Your task to perform on an android device: Install the Instagram app Image 0: 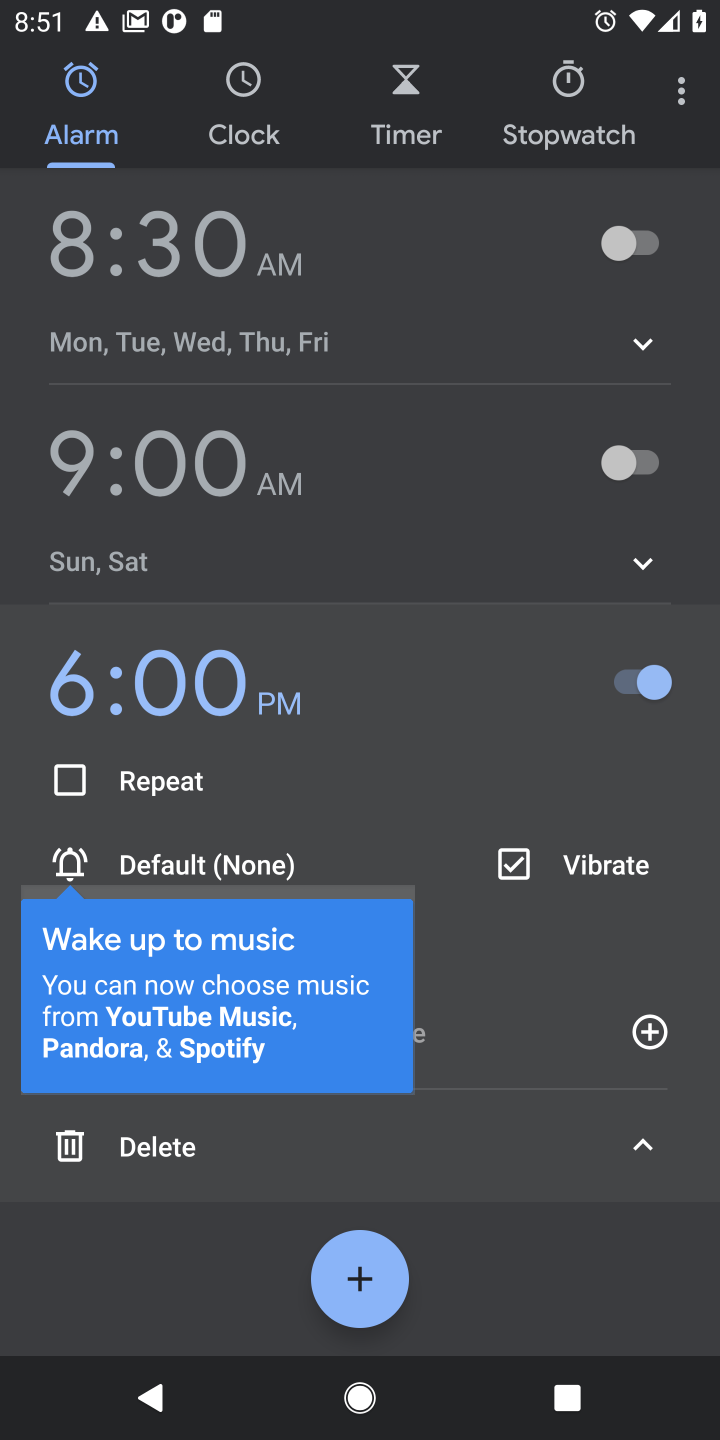
Step 0: press home button
Your task to perform on an android device: Install the Instagram app Image 1: 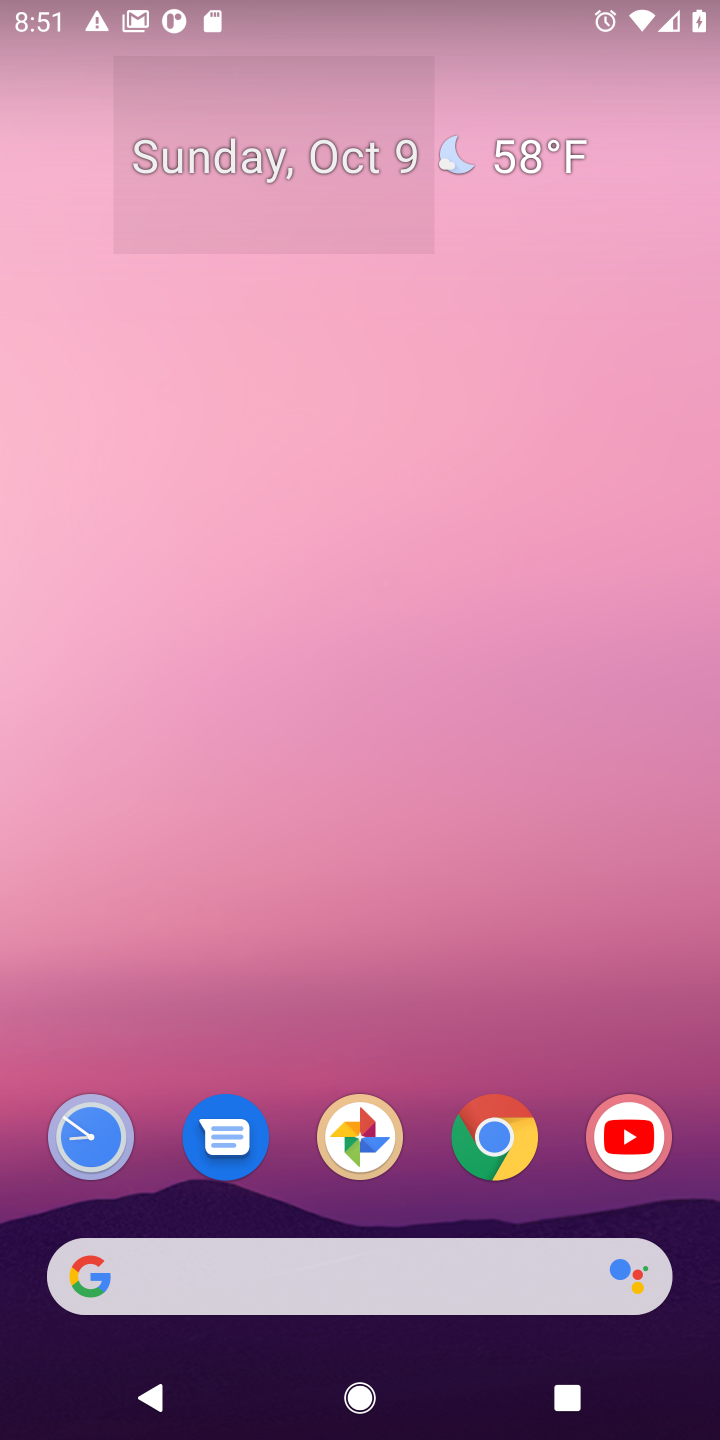
Step 1: drag from (403, 1055) to (439, 1)
Your task to perform on an android device: Install the Instagram app Image 2: 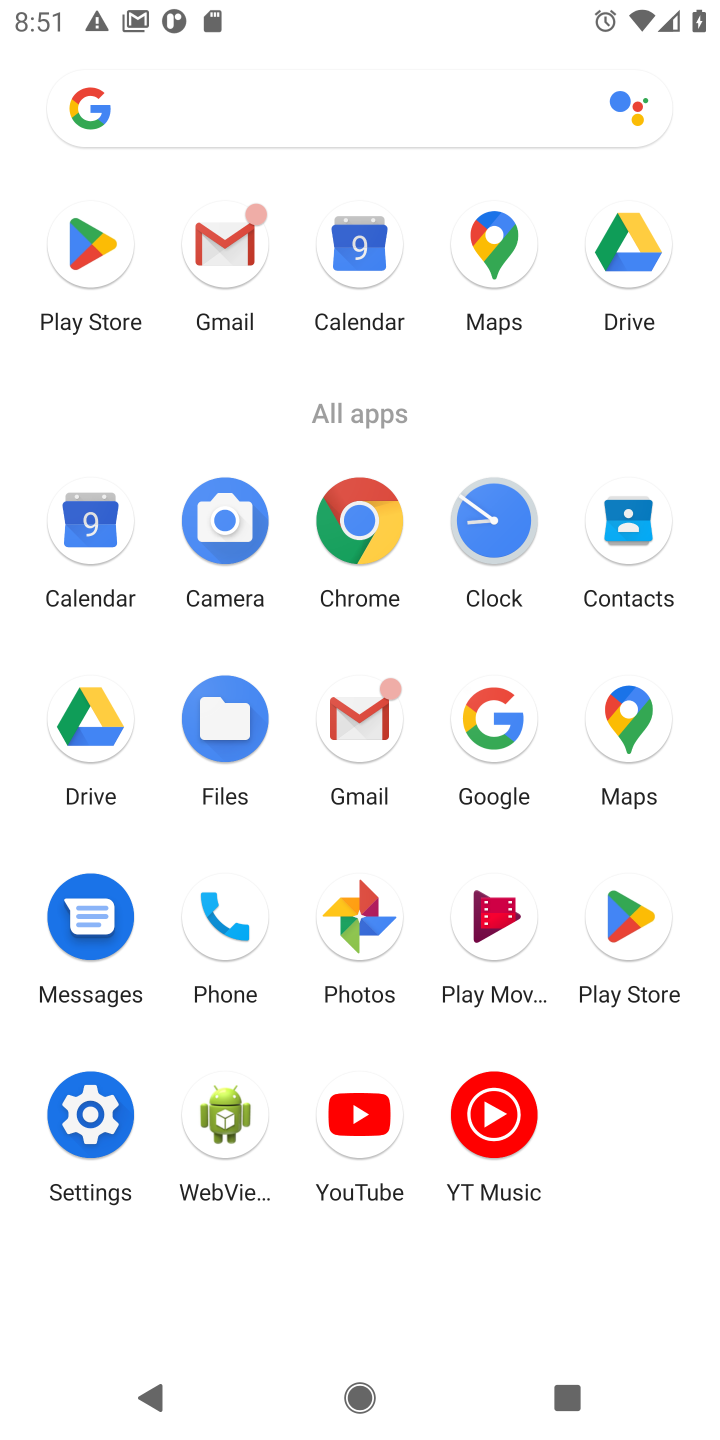
Step 2: click (355, 515)
Your task to perform on an android device: Install the Instagram app Image 3: 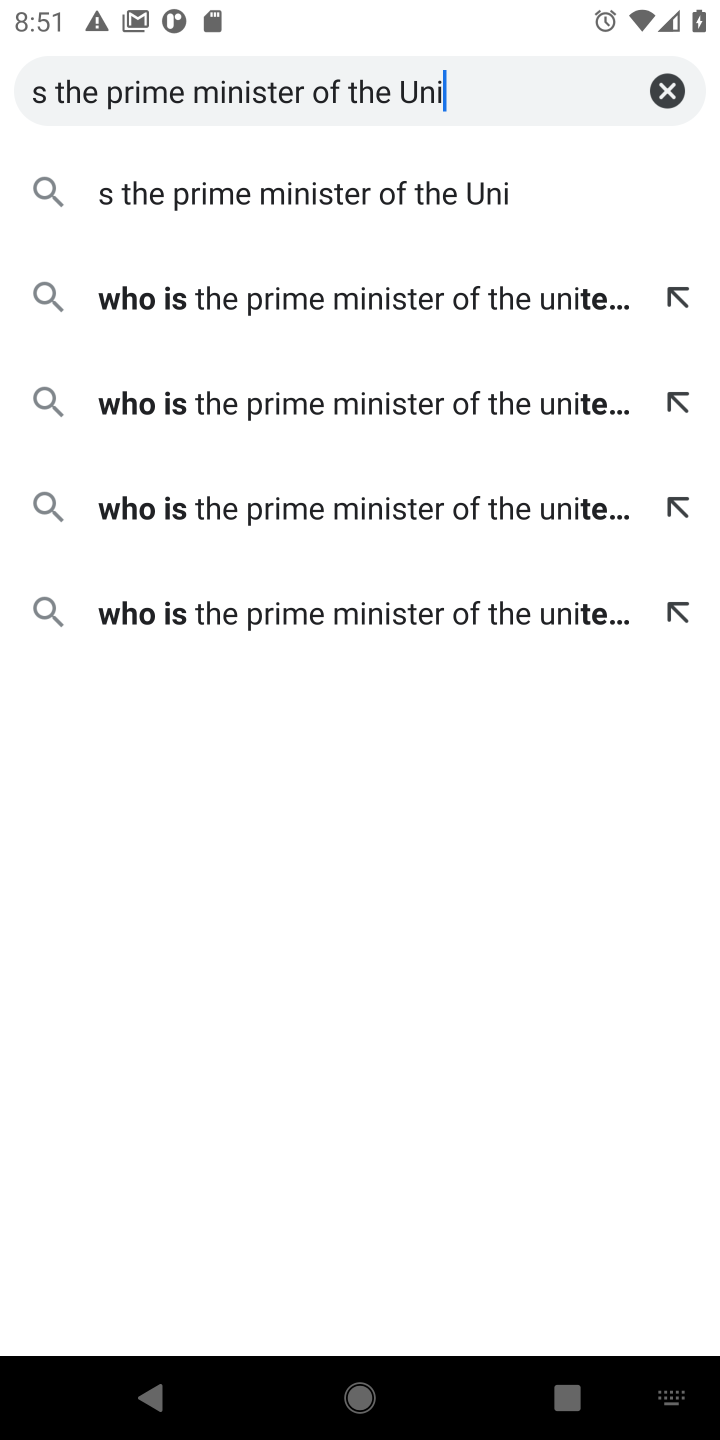
Step 3: click (673, 85)
Your task to perform on an android device: Install the Instagram app Image 4: 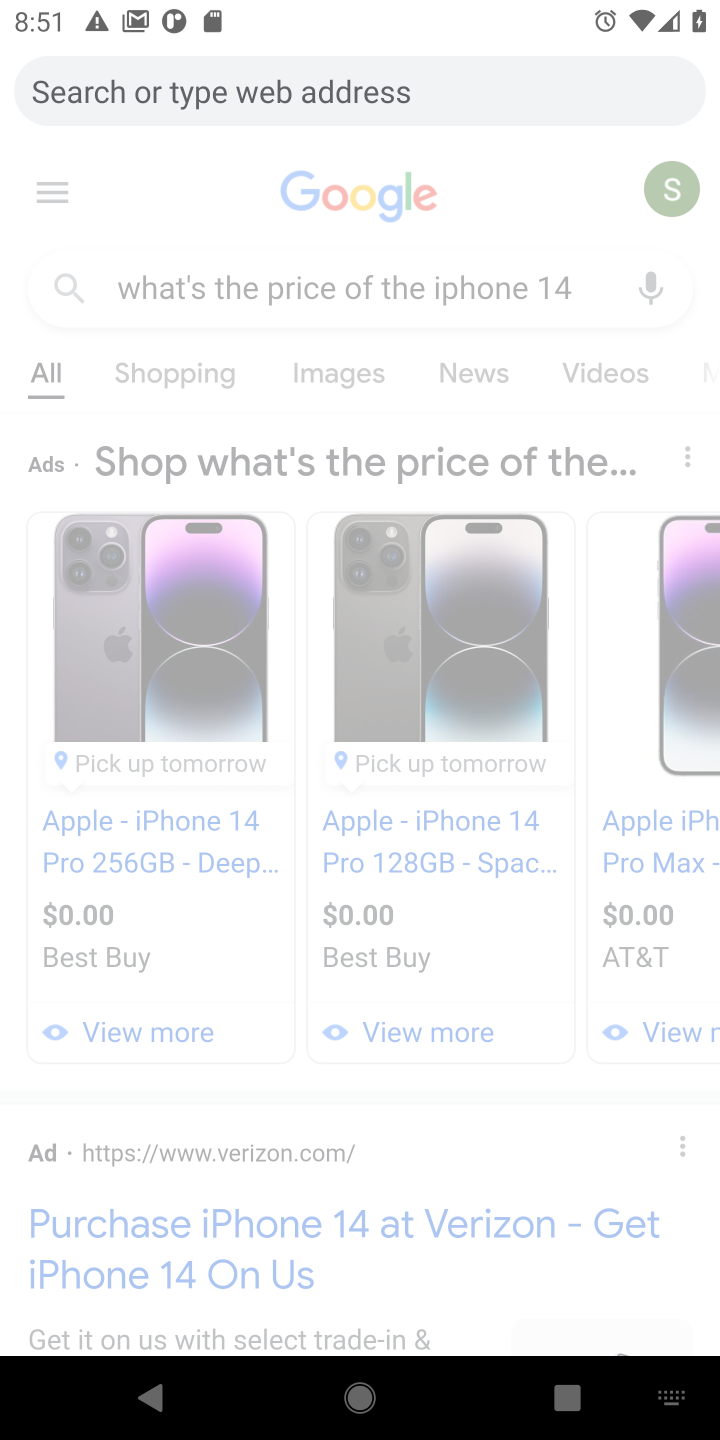
Step 4: click (409, 67)
Your task to perform on an android device: Install the Instagram app Image 5: 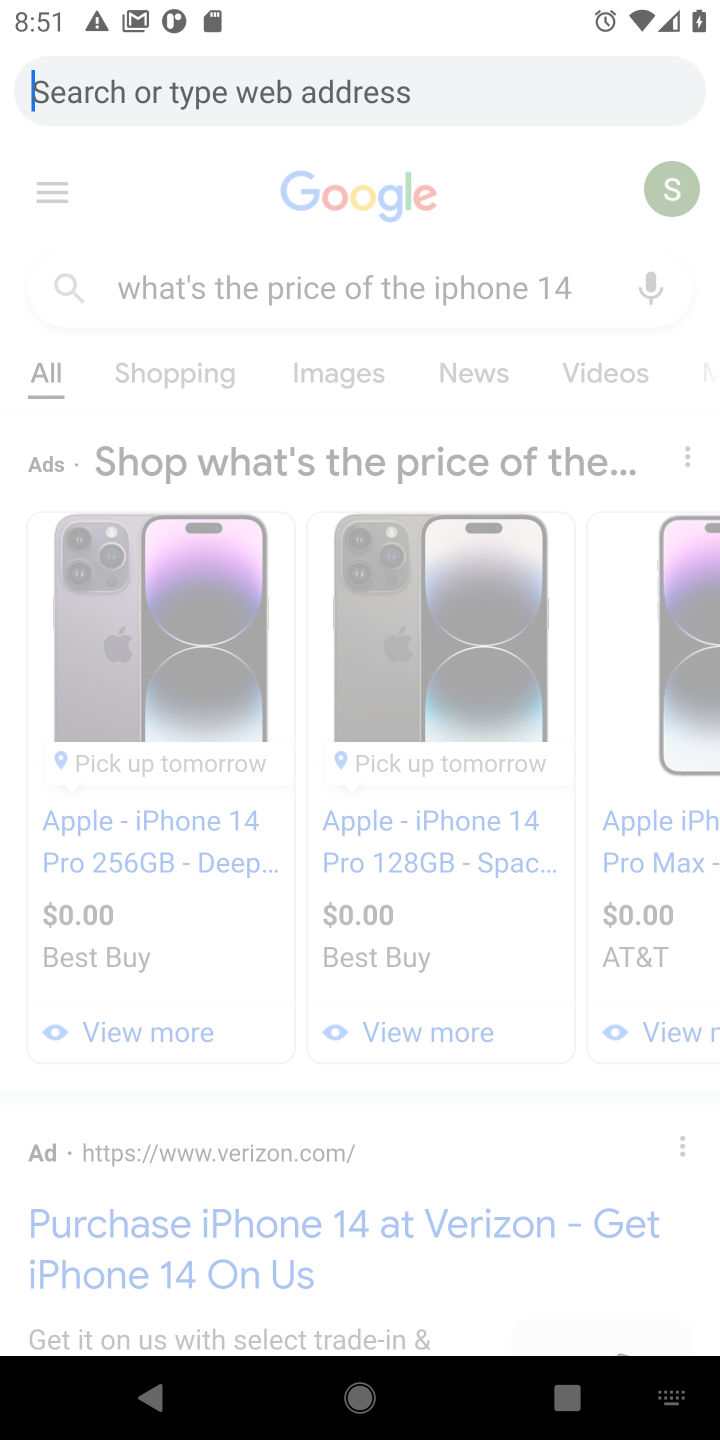
Step 5: type "Install the Instagram app"
Your task to perform on an android device: Install the Instagram app Image 6: 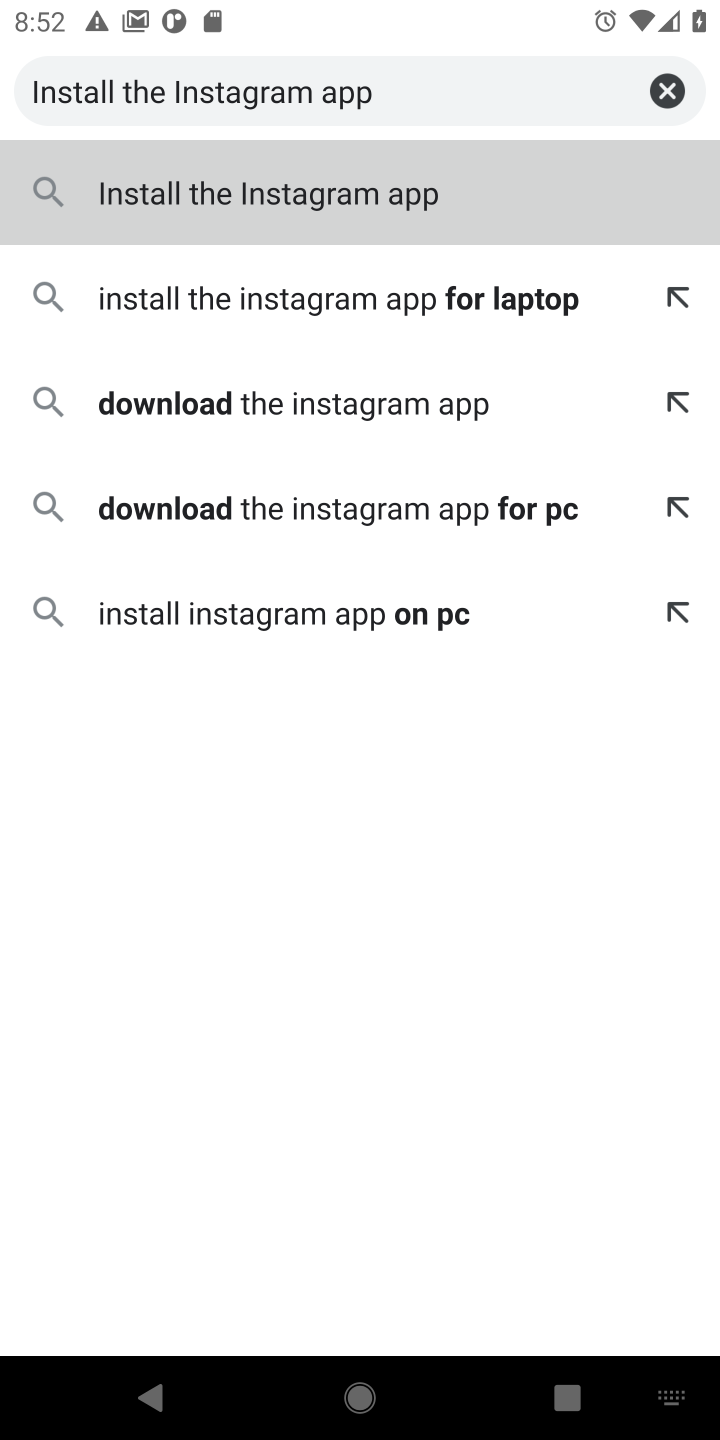
Step 6: click (355, 191)
Your task to perform on an android device: Install the Instagram app Image 7: 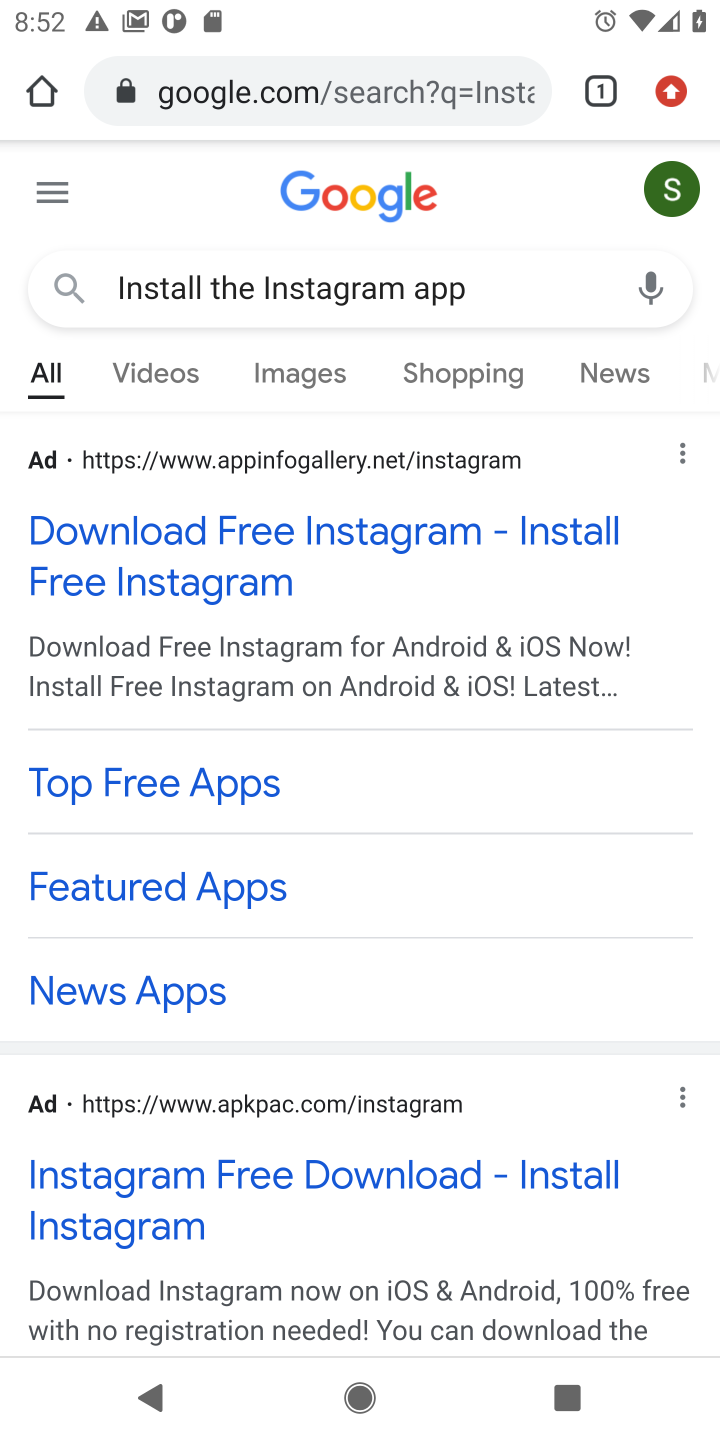
Step 7: task complete